Your task to perform on an android device: open chrome and create a bookmark for the current page Image 0: 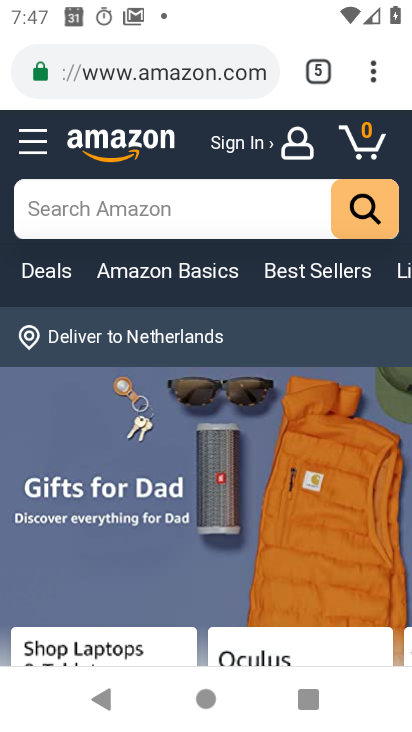
Step 0: click (375, 70)
Your task to perform on an android device: open chrome and create a bookmark for the current page Image 1: 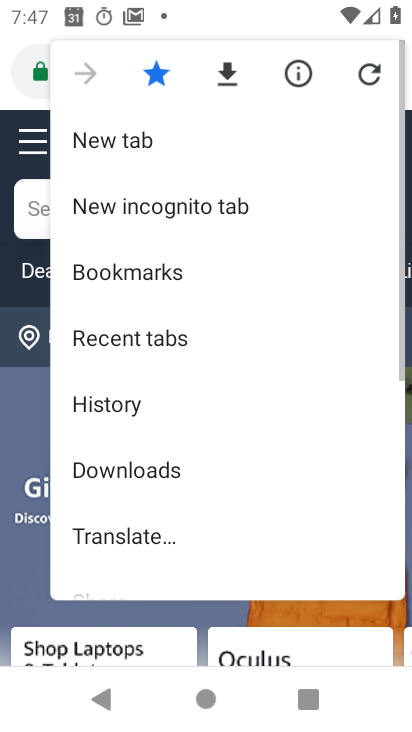
Step 1: click (129, 287)
Your task to perform on an android device: open chrome and create a bookmark for the current page Image 2: 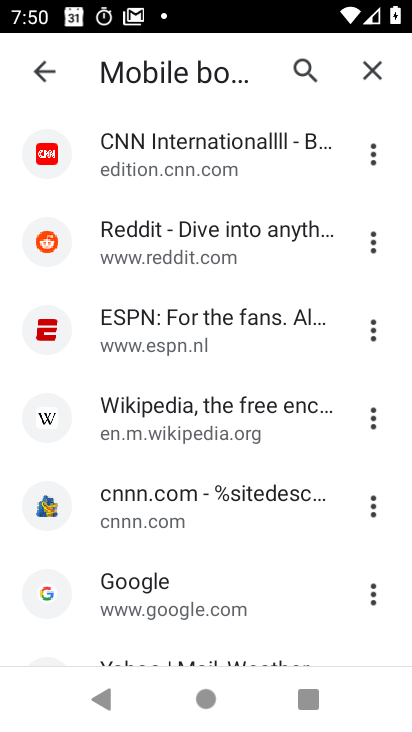
Step 2: task complete